Your task to perform on an android device: Open calendar and show me the third week of next month Image 0: 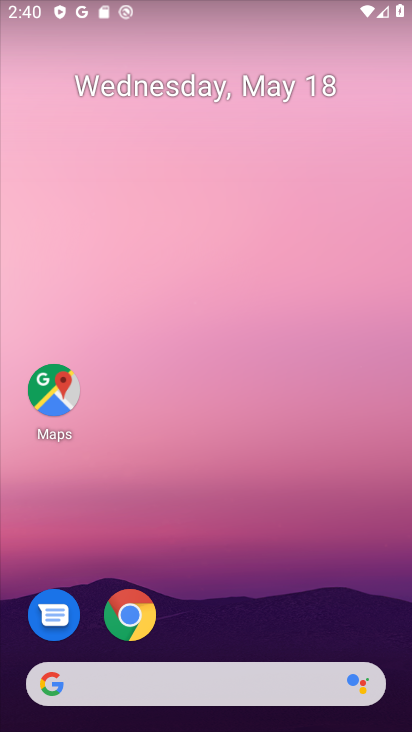
Step 0: drag from (247, 557) to (253, 157)
Your task to perform on an android device: Open calendar and show me the third week of next month Image 1: 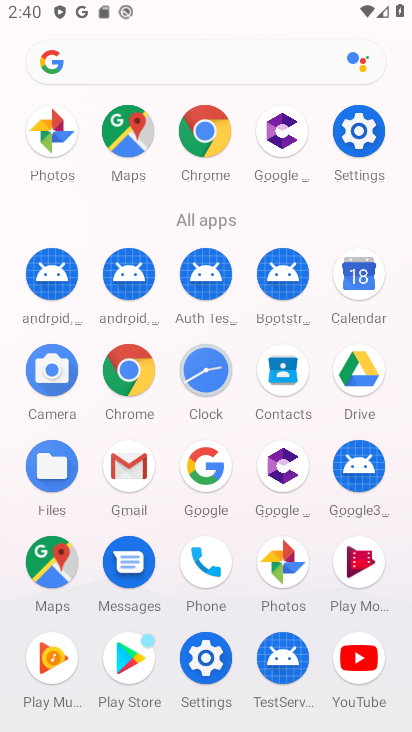
Step 1: click (350, 268)
Your task to perform on an android device: Open calendar and show me the third week of next month Image 2: 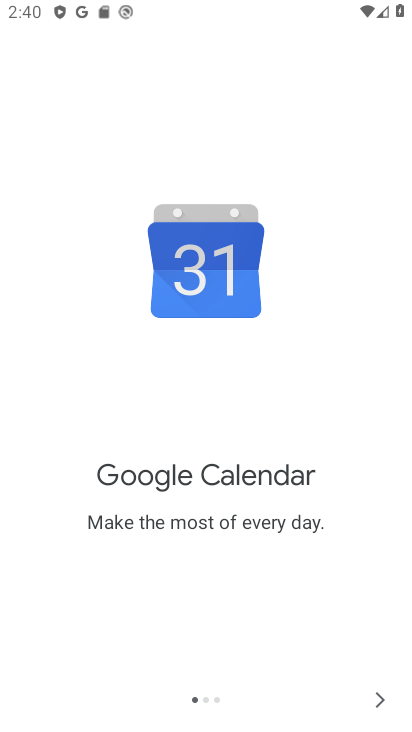
Step 2: click (376, 696)
Your task to perform on an android device: Open calendar and show me the third week of next month Image 3: 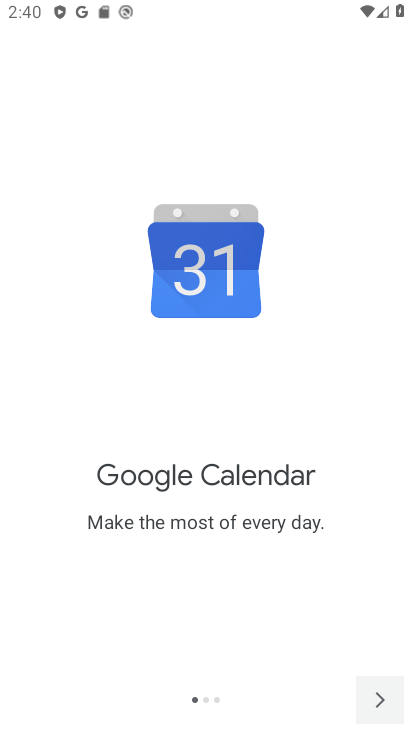
Step 3: click (376, 695)
Your task to perform on an android device: Open calendar and show me the third week of next month Image 4: 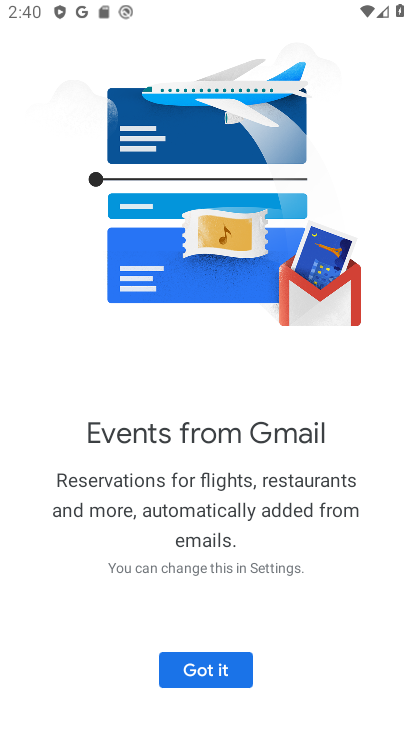
Step 4: click (376, 695)
Your task to perform on an android device: Open calendar and show me the third week of next month Image 5: 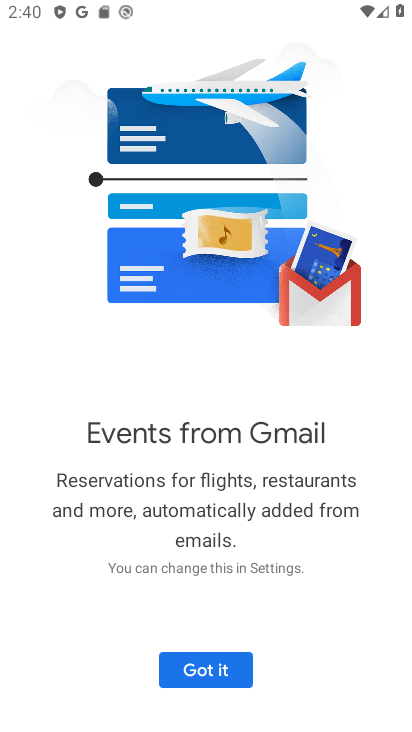
Step 5: click (236, 674)
Your task to perform on an android device: Open calendar and show me the third week of next month Image 6: 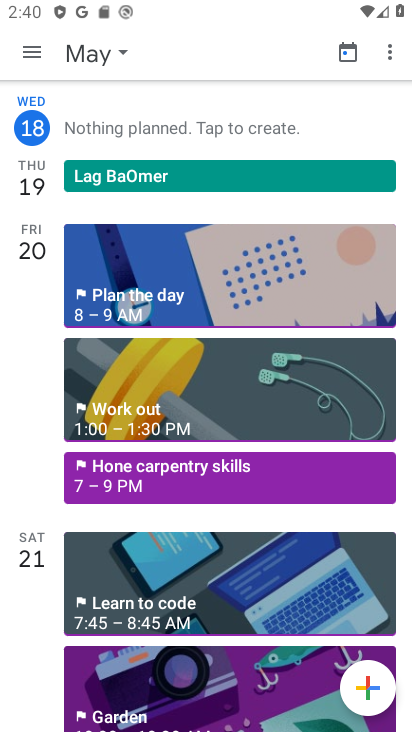
Step 6: click (79, 53)
Your task to perform on an android device: Open calendar and show me the third week of next month Image 7: 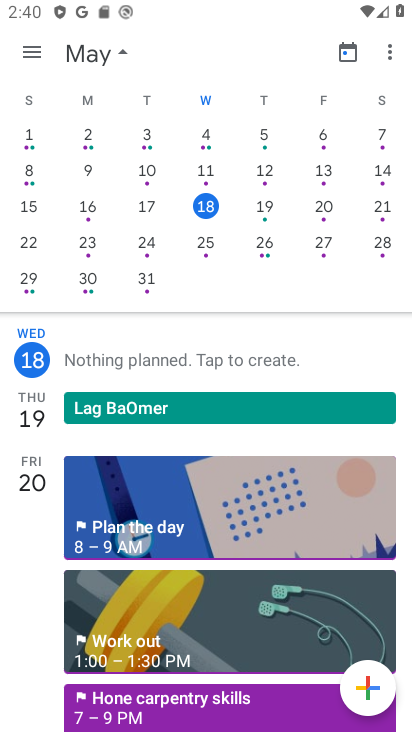
Step 7: drag from (343, 184) to (44, 169)
Your task to perform on an android device: Open calendar and show me the third week of next month Image 8: 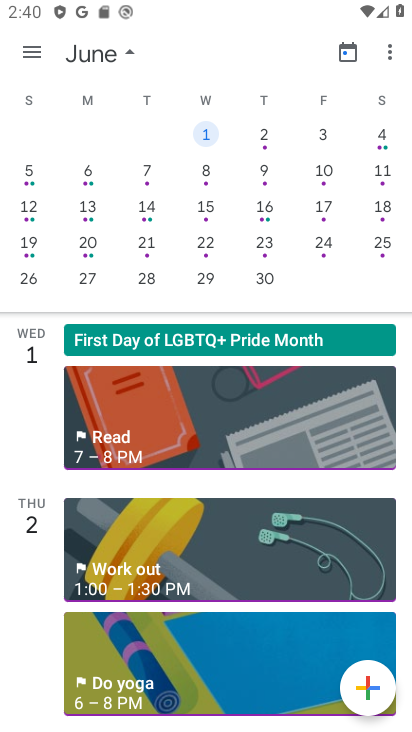
Step 8: click (27, 251)
Your task to perform on an android device: Open calendar and show me the third week of next month Image 9: 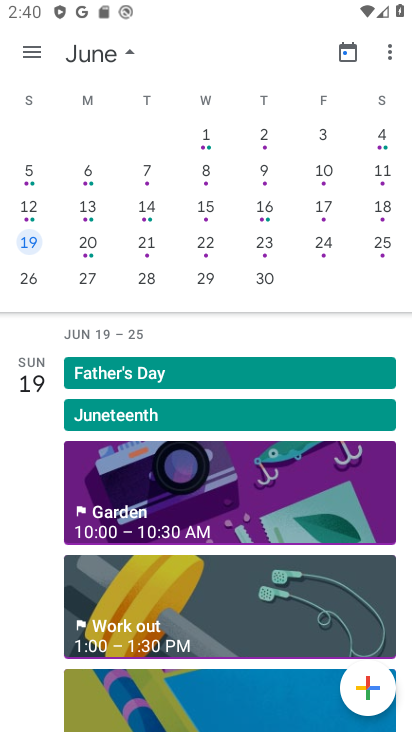
Step 9: click (38, 63)
Your task to perform on an android device: Open calendar and show me the third week of next month Image 10: 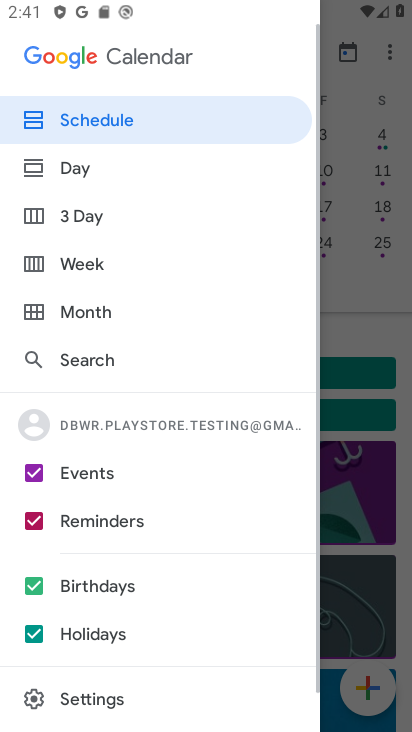
Step 10: click (57, 254)
Your task to perform on an android device: Open calendar and show me the third week of next month Image 11: 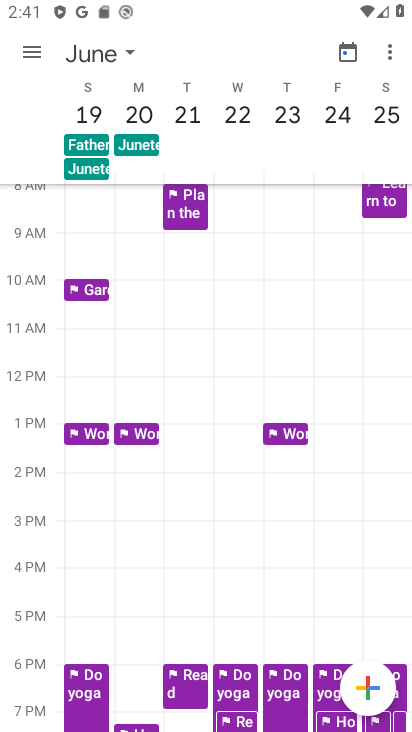
Step 11: task complete